Your task to perform on an android device: Search for "energizer triple a" on ebay, select the first entry, add it to the cart, then select checkout. Image 0: 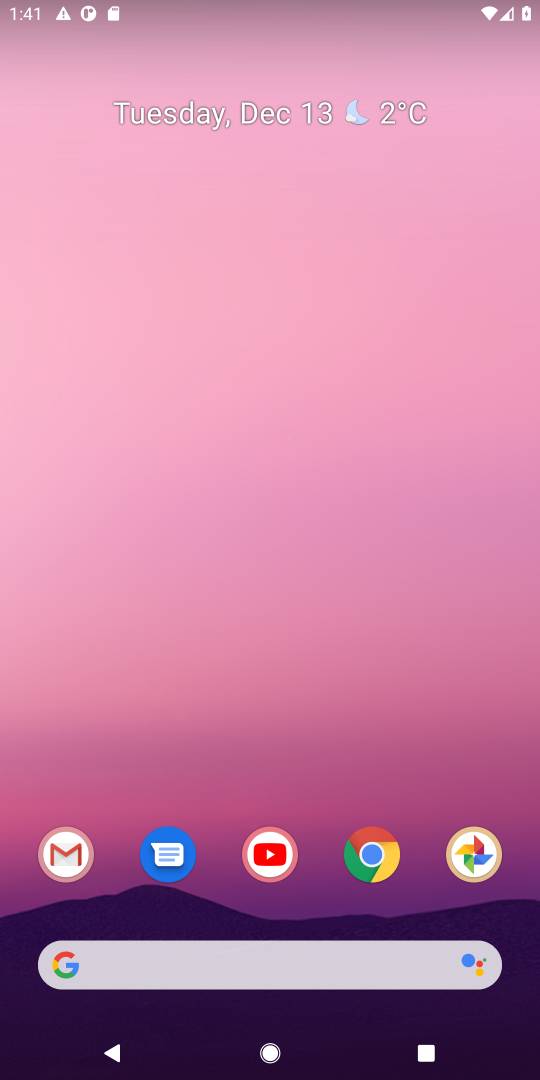
Step 0: click (166, 965)
Your task to perform on an android device: Search for "energizer triple a" on ebay, select the first entry, add it to the cart, then select checkout. Image 1: 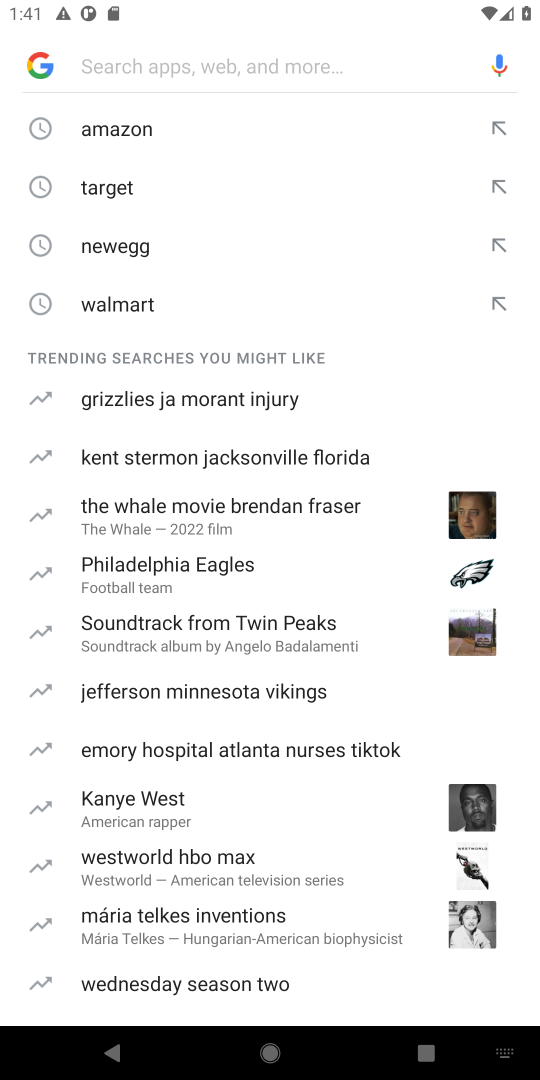
Step 1: type "ebay"
Your task to perform on an android device: Search for "energizer triple a" on ebay, select the first entry, add it to the cart, then select checkout. Image 2: 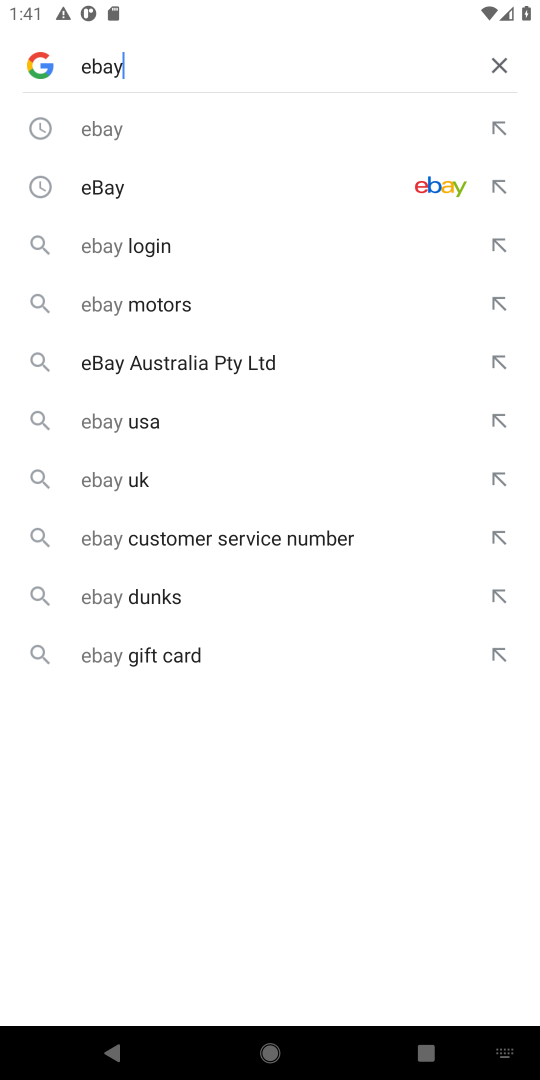
Step 2: click (124, 188)
Your task to perform on an android device: Search for "energizer triple a" on ebay, select the first entry, add it to the cart, then select checkout. Image 3: 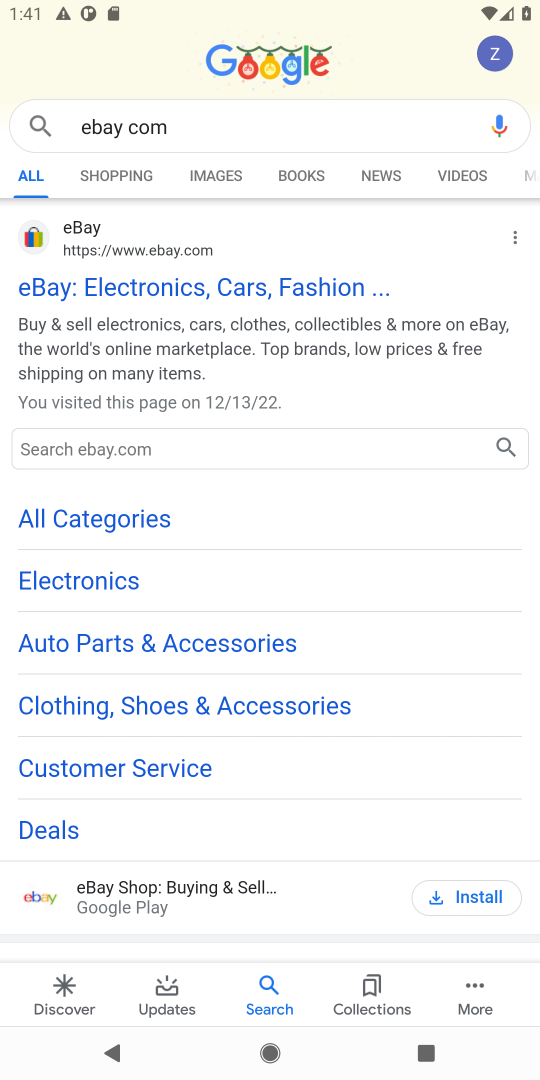
Step 3: click (124, 289)
Your task to perform on an android device: Search for "energizer triple a" on ebay, select the first entry, add it to the cart, then select checkout. Image 4: 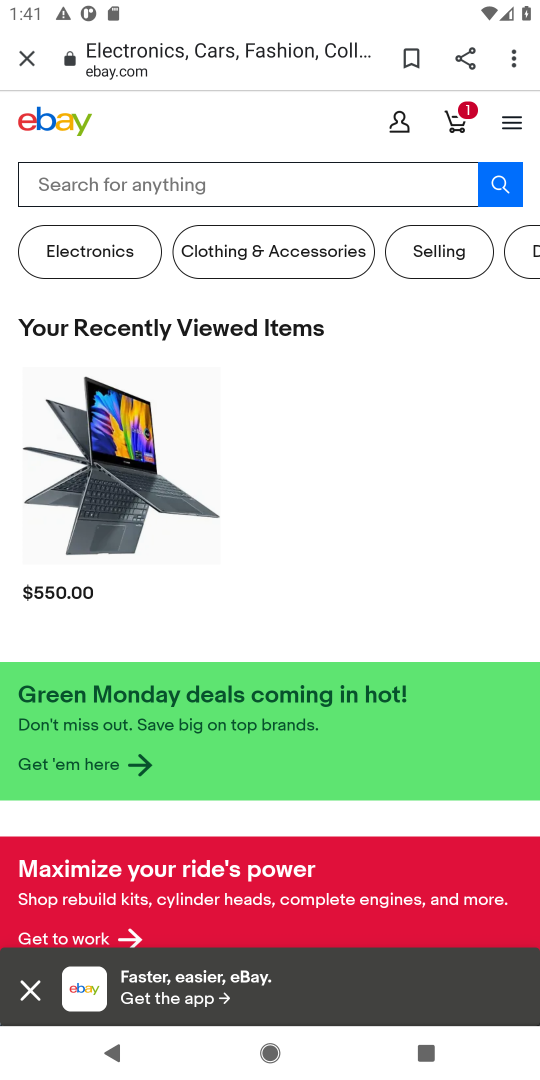
Step 4: click (196, 198)
Your task to perform on an android device: Search for "energizer triple a" on ebay, select the first entry, add it to the cart, then select checkout. Image 5: 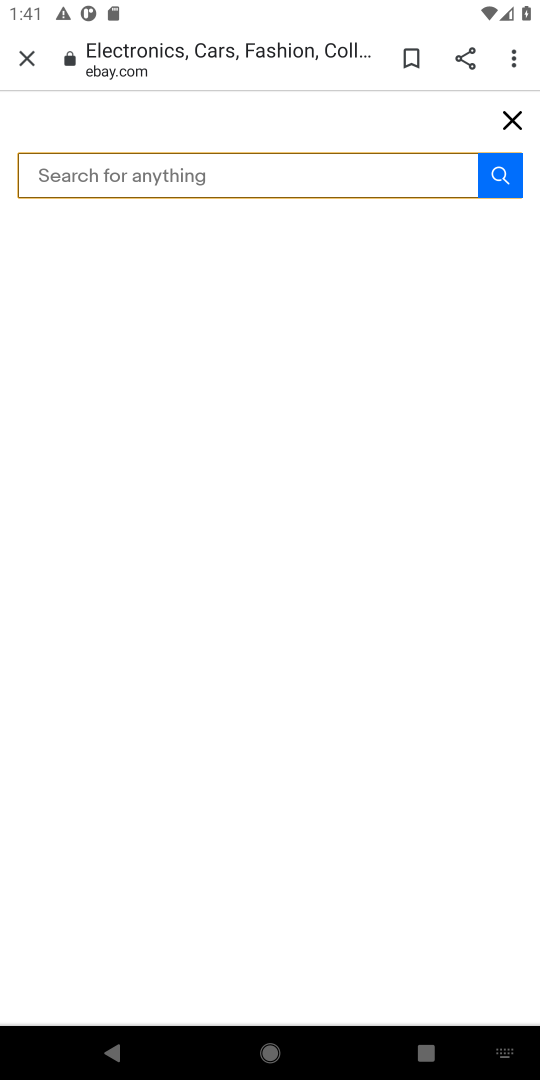
Step 5: type "energizer"
Your task to perform on an android device: Search for "energizer triple a" on ebay, select the first entry, add it to the cart, then select checkout. Image 6: 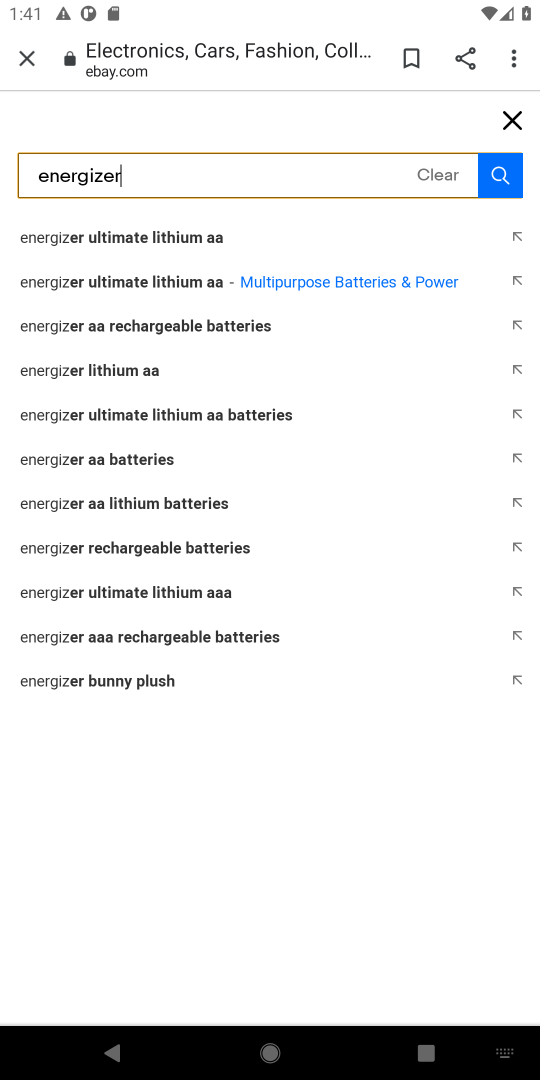
Step 6: click (148, 634)
Your task to perform on an android device: Search for "energizer triple a" on ebay, select the first entry, add it to the cart, then select checkout. Image 7: 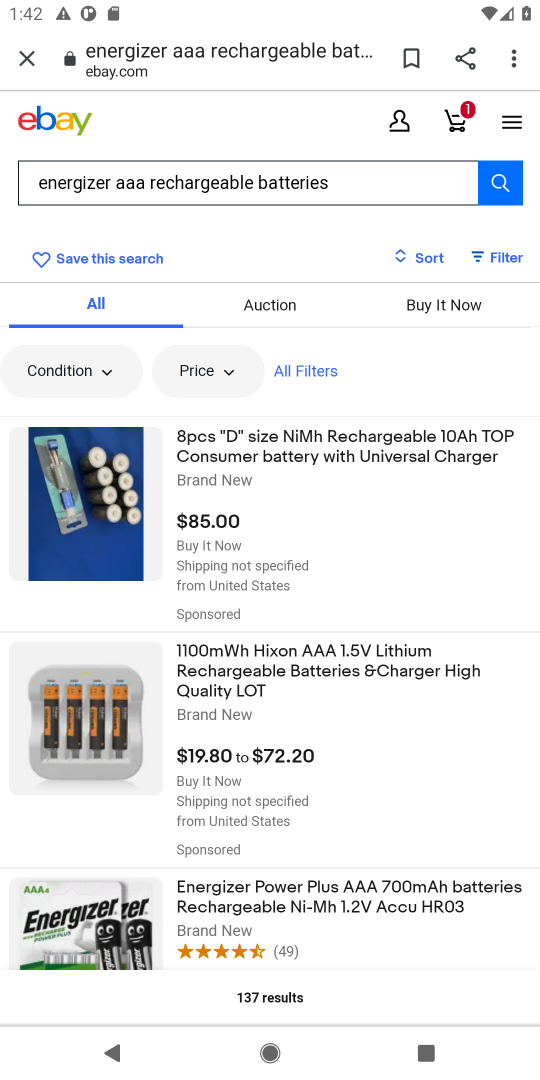
Step 7: click (208, 678)
Your task to perform on an android device: Search for "energizer triple a" on ebay, select the first entry, add it to the cart, then select checkout. Image 8: 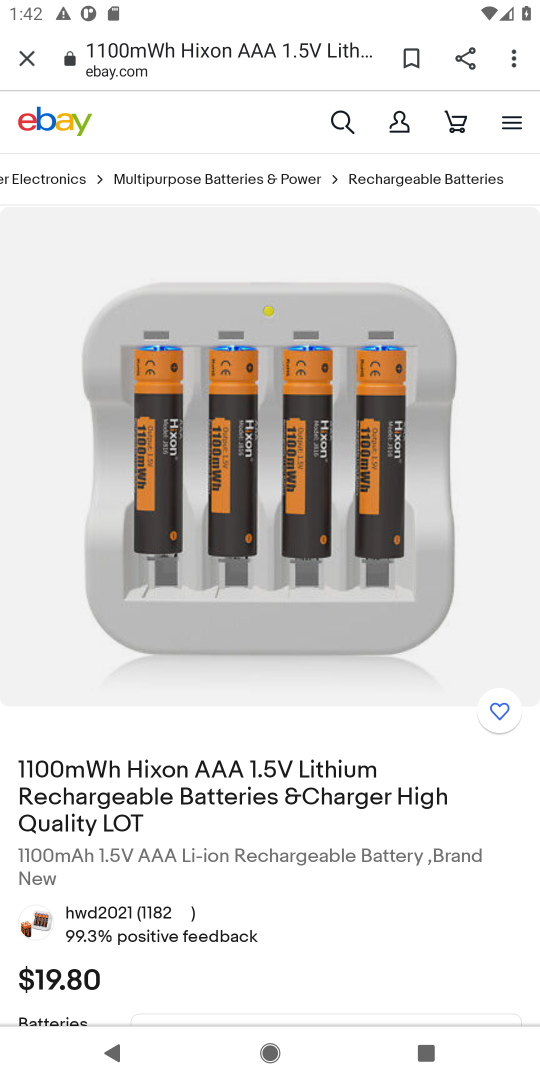
Step 8: drag from (341, 790) to (372, 396)
Your task to perform on an android device: Search for "energizer triple a" on ebay, select the first entry, add it to the cart, then select checkout. Image 9: 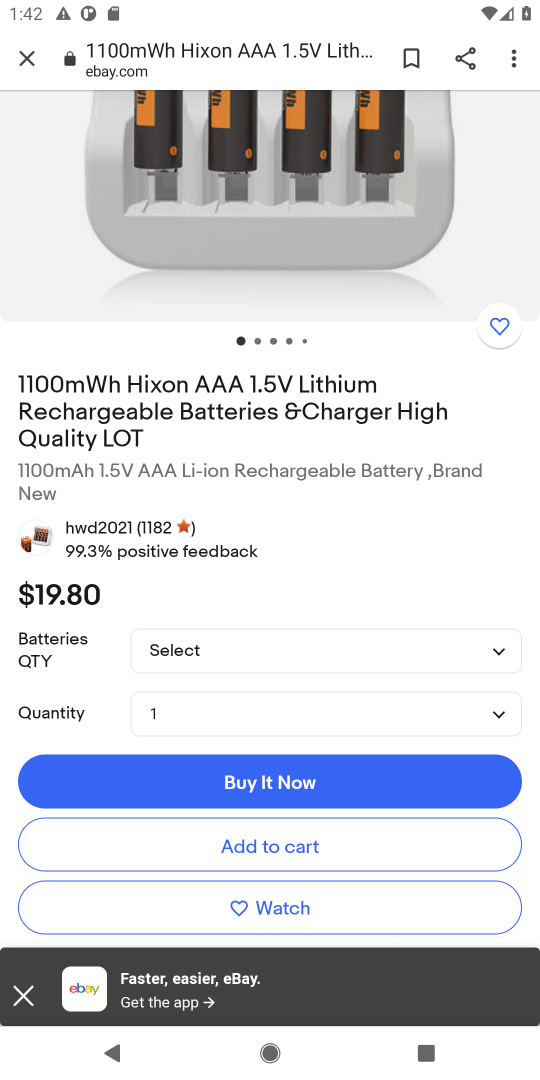
Step 9: click (318, 851)
Your task to perform on an android device: Search for "energizer triple a" on ebay, select the first entry, add it to the cart, then select checkout. Image 10: 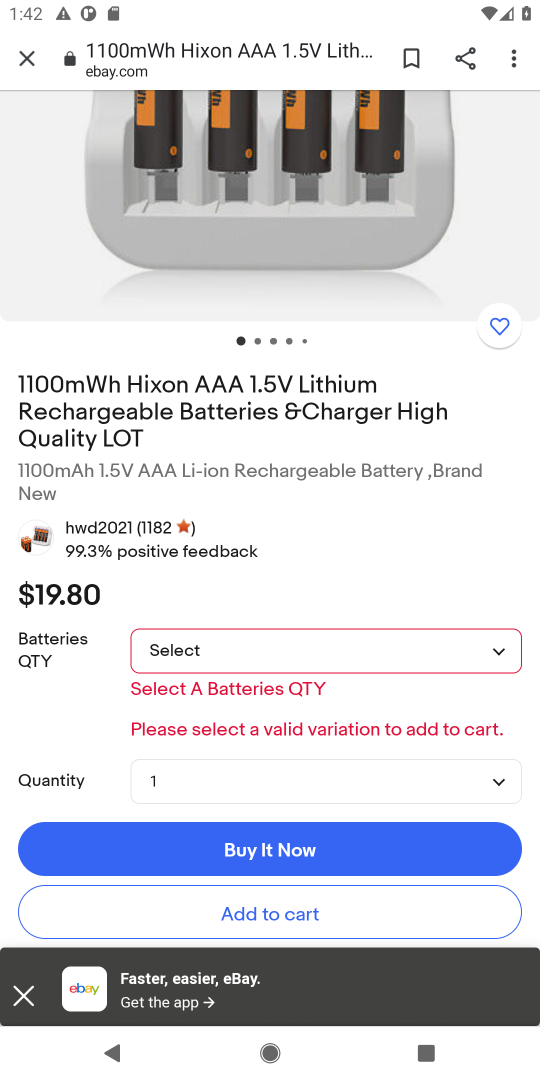
Step 10: task complete